Your task to perform on an android device: turn pop-ups on in chrome Image 0: 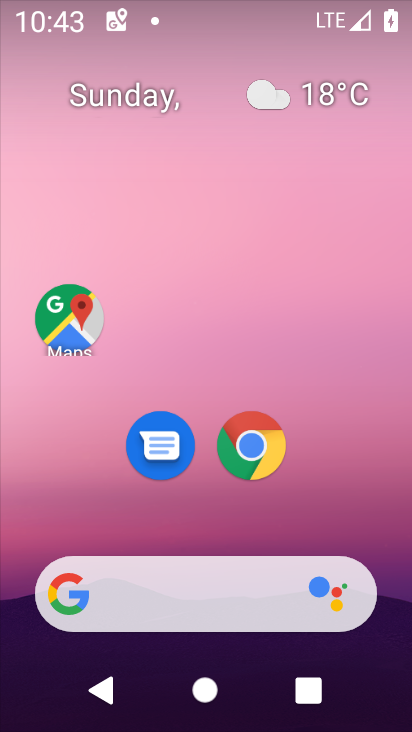
Step 0: press home button
Your task to perform on an android device: turn pop-ups on in chrome Image 1: 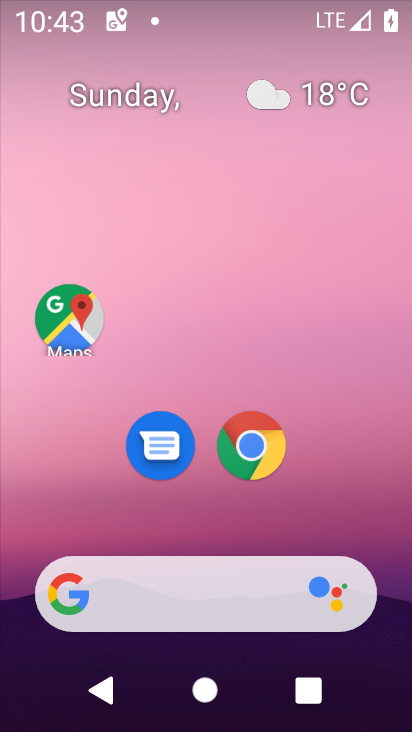
Step 1: click (251, 441)
Your task to perform on an android device: turn pop-ups on in chrome Image 2: 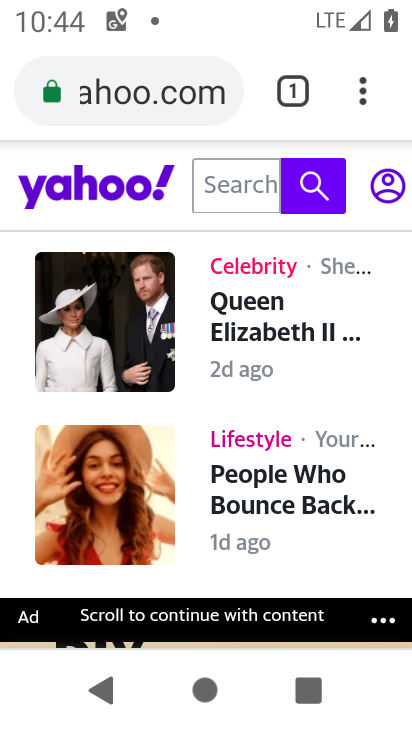
Step 2: click (360, 95)
Your task to perform on an android device: turn pop-ups on in chrome Image 3: 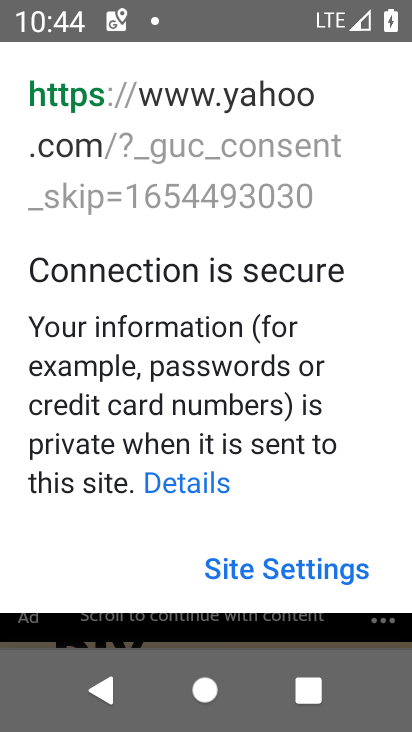
Step 3: click (111, 644)
Your task to perform on an android device: turn pop-ups on in chrome Image 4: 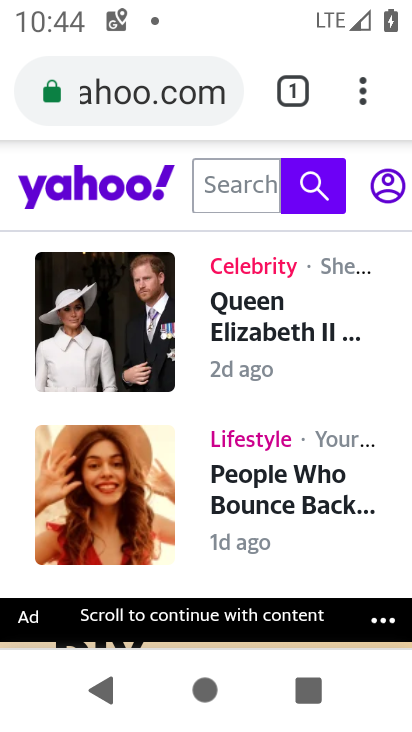
Step 4: click (358, 86)
Your task to perform on an android device: turn pop-ups on in chrome Image 5: 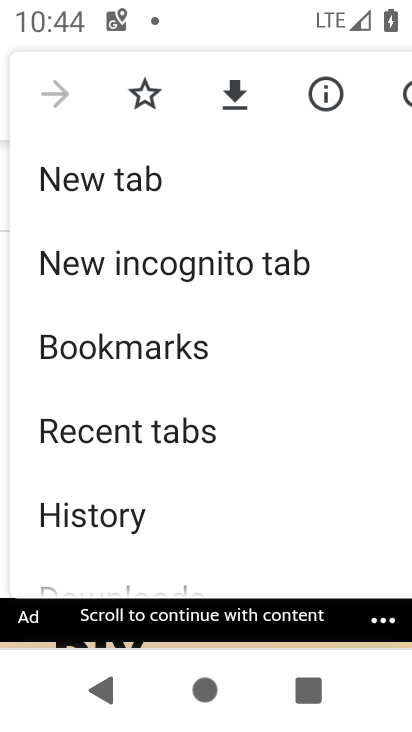
Step 5: drag from (200, 523) to (251, 37)
Your task to perform on an android device: turn pop-ups on in chrome Image 6: 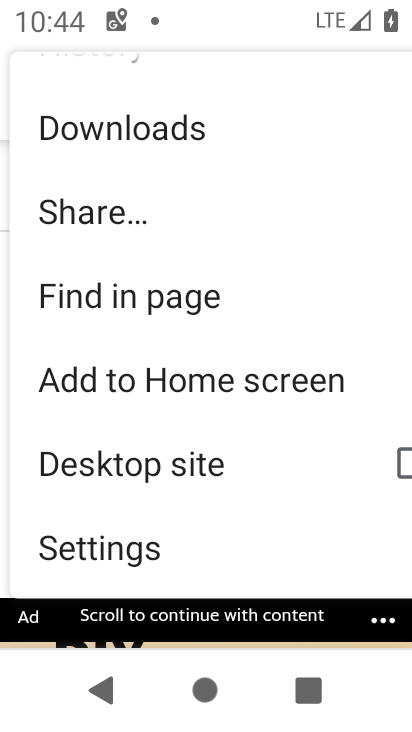
Step 6: click (168, 546)
Your task to perform on an android device: turn pop-ups on in chrome Image 7: 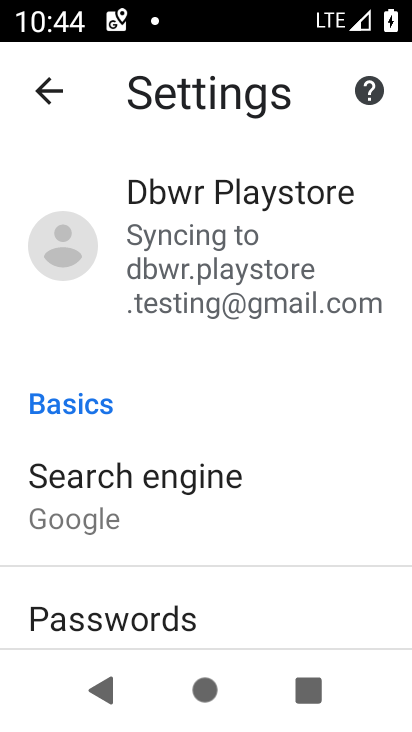
Step 7: drag from (244, 623) to (300, 57)
Your task to perform on an android device: turn pop-ups on in chrome Image 8: 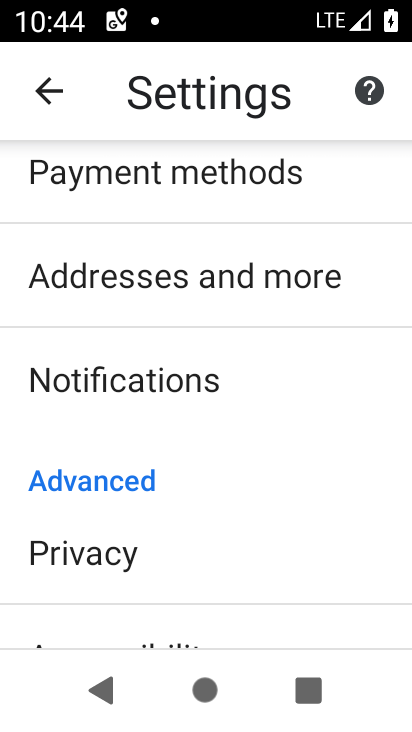
Step 8: drag from (156, 579) to (176, 85)
Your task to perform on an android device: turn pop-ups on in chrome Image 9: 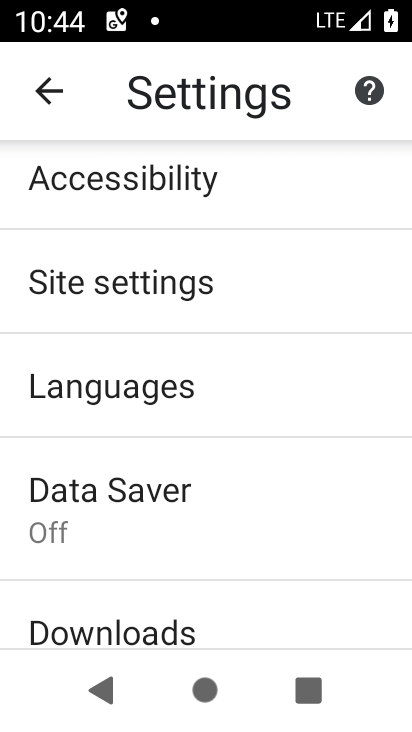
Step 9: click (239, 288)
Your task to perform on an android device: turn pop-ups on in chrome Image 10: 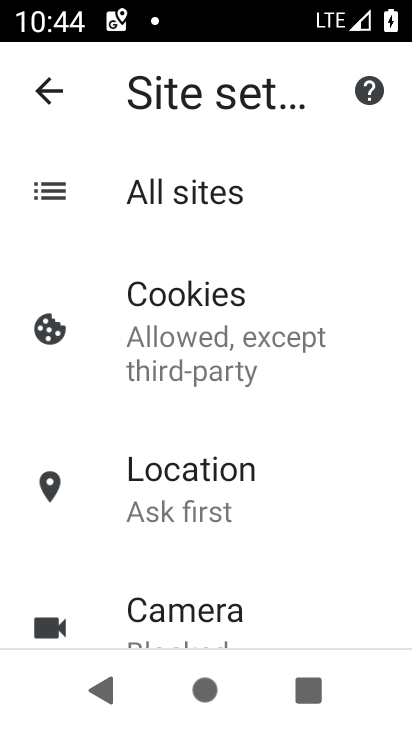
Step 10: drag from (237, 562) to (278, 74)
Your task to perform on an android device: turn pop-ups on in chrome Image 11: 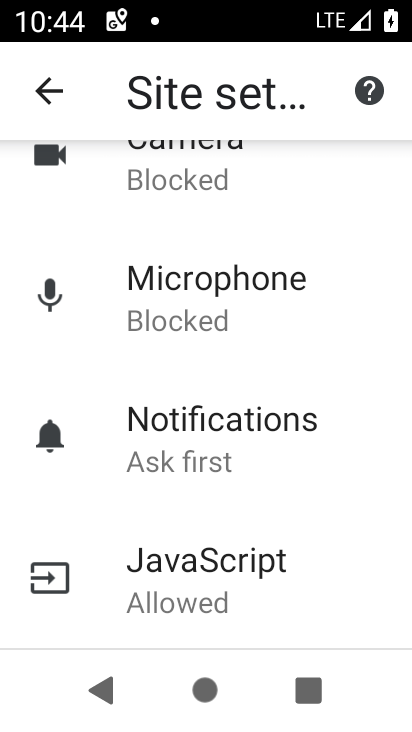
Step 11: drag from (239, 600) to (288, 186)
Your task to perform on an android device: turn pop-ups on in chrome Image 12: 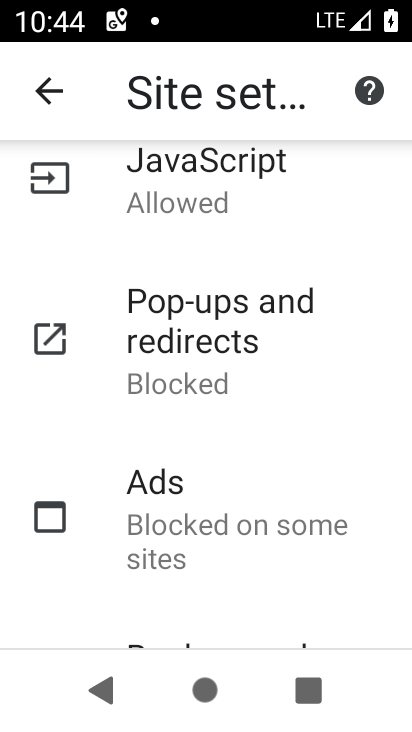
Step 12: click (265, 346)
Your task to perform on an android device: turn pop-ups on in chrome Image 13: 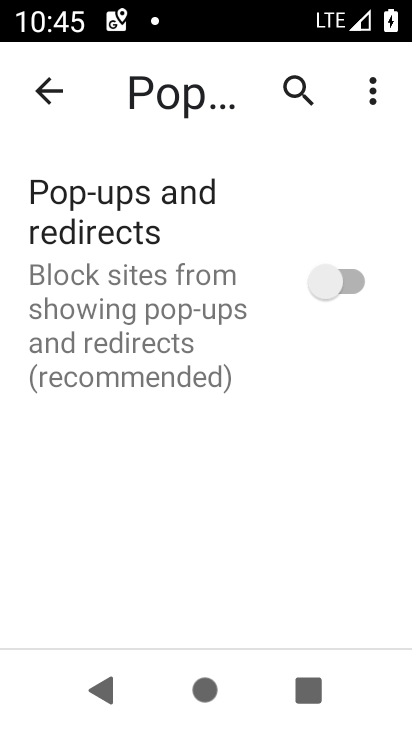
Step 13: click (338, 264)
Your task to perform on an android device: turn pop-ups on in chrome Image 14: 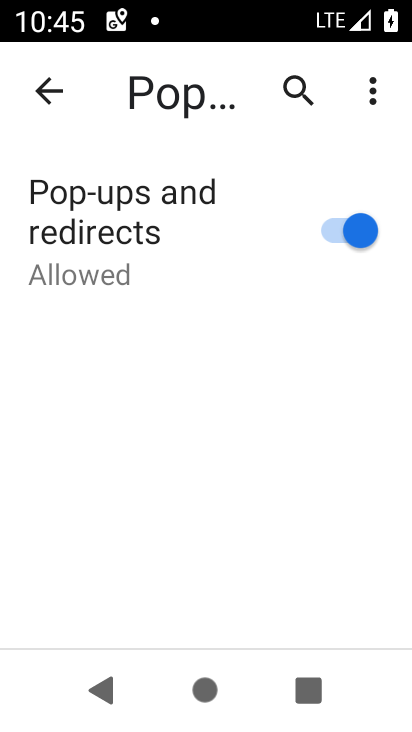
Step 14: task complete